Your task to perform on an android device: Open accessibility settings Image 0: 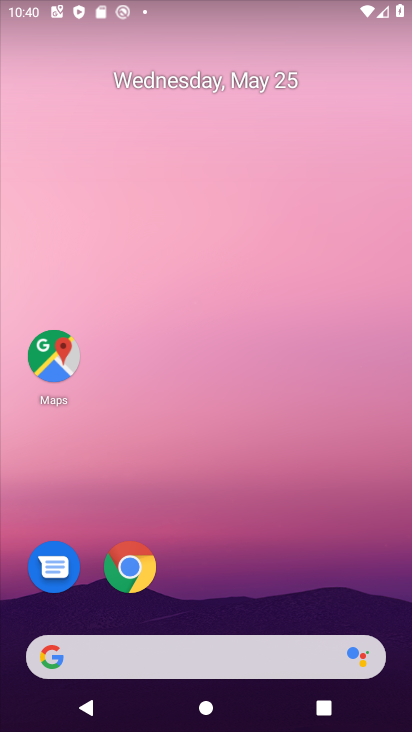
Step 0: drag from (295, 714) to (159, 145)
Your task to perform on an android device: Open accessibility settings Image 1: 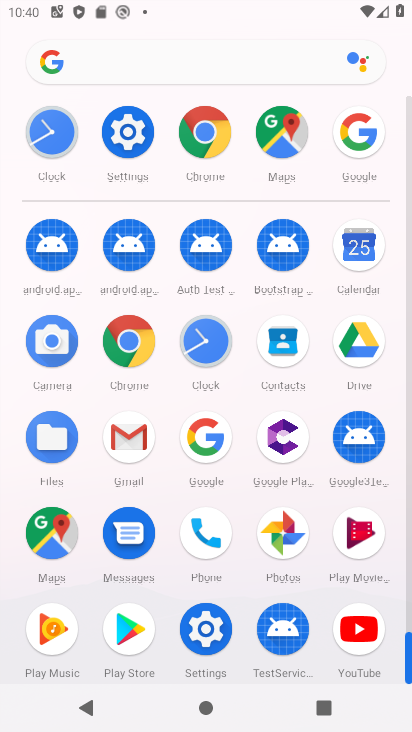
Step 1: click (204, 631)
Your task to perform on an android device: Open accessibility settings Image 2: 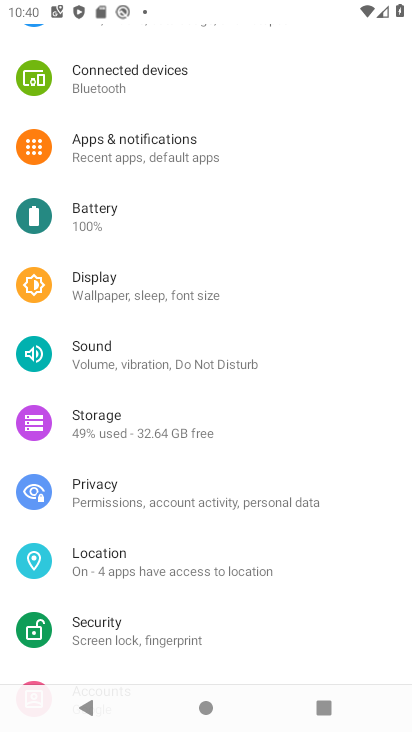
Step 2: drag from (189, 602) to (152, 159)
Your task to perform on an android device: Open accessibility settings Image 3: 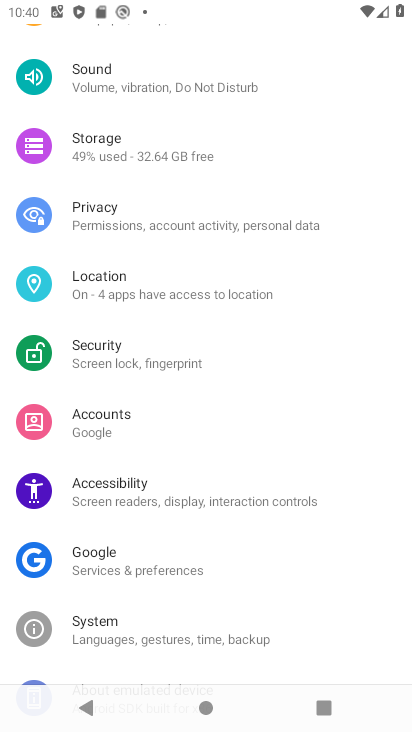
Step 3: drag from (191, 373) to (163, 156)
Your task to perform on an android device: Open accessibility settings Image 4: 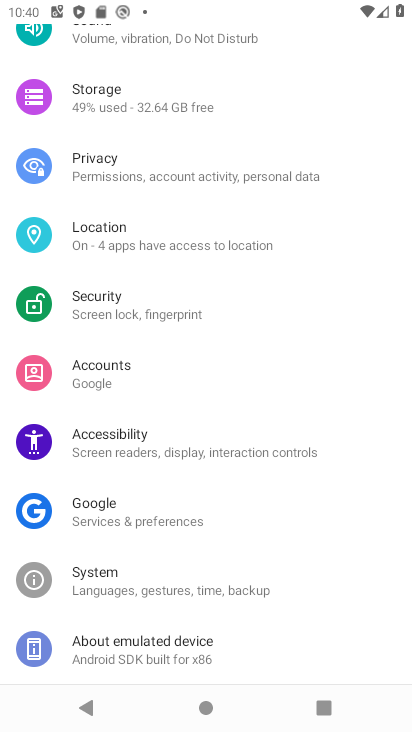
Step 4: click (105, 452)
Your task to perform on an android device: Open accessibility settings Image 5: 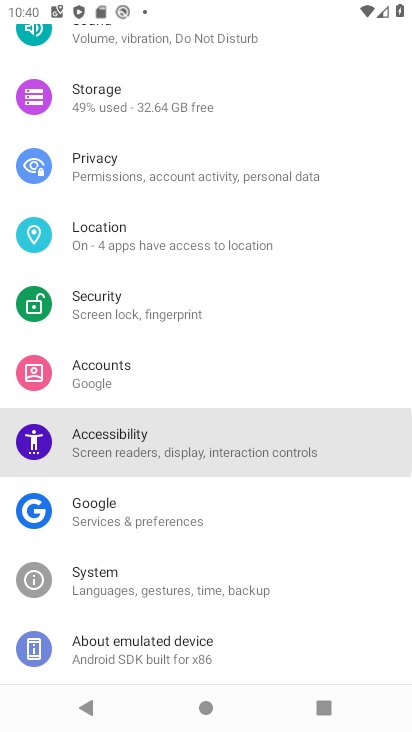
Step 5: click (106, 452)
Your task to perform on an android device: Open accessibility settings Image 6: 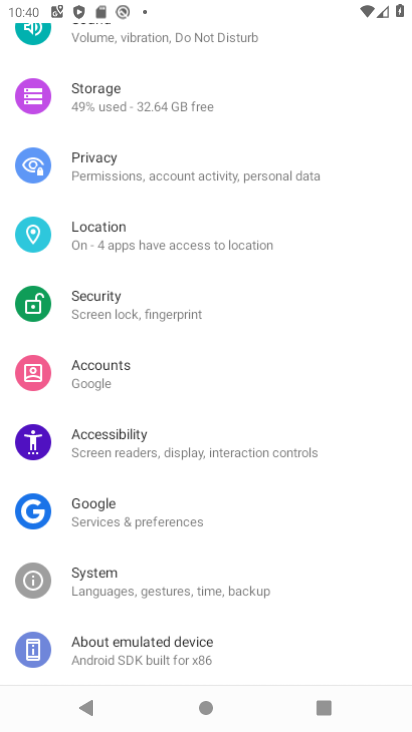
Step 6: click (106, 452)
Your task to perform on an android device: Open accessibility settings Image 7: 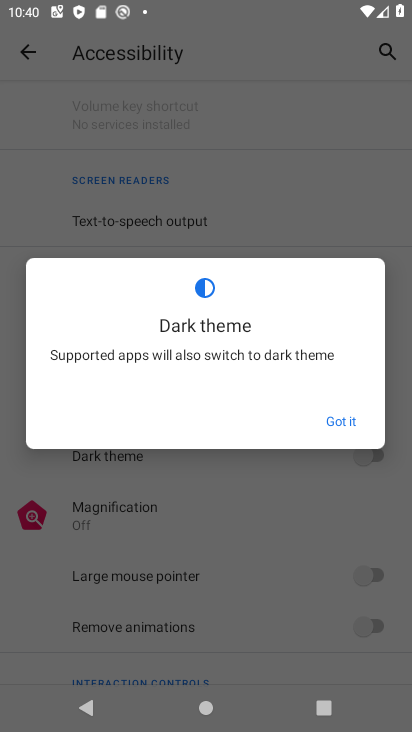
Step 7: click (337, 424)
Your task to perform on an android device: Open accessibility settings Image 8: 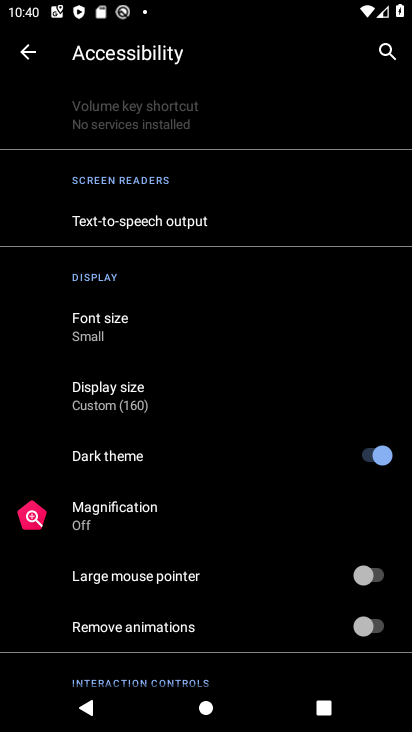
Step 8: click (379, 452)
Your task to perform on an android device: Open accessibility settings Image 9: 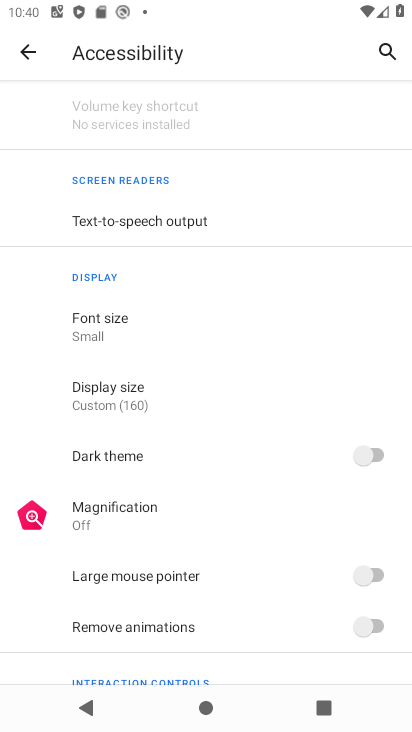
Step 9: task complete